Your task to perform on an android device: turn off smart reply in the gmail app Image 0: 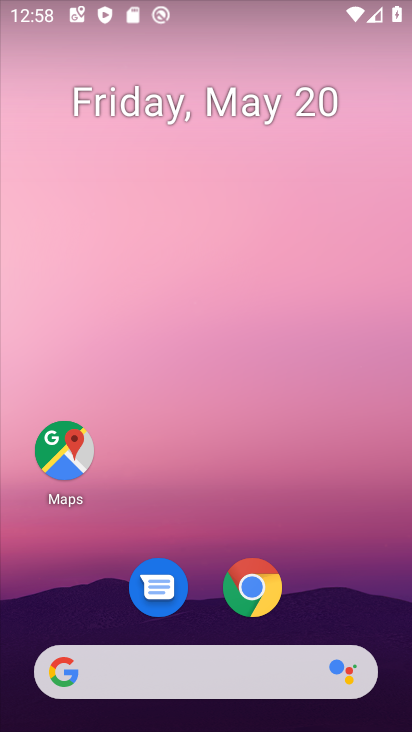
Step 0: drag from (340, 486) to (203, 20)
Your task to perform on an android device: turn off smart reply in the gmail app Image 1: 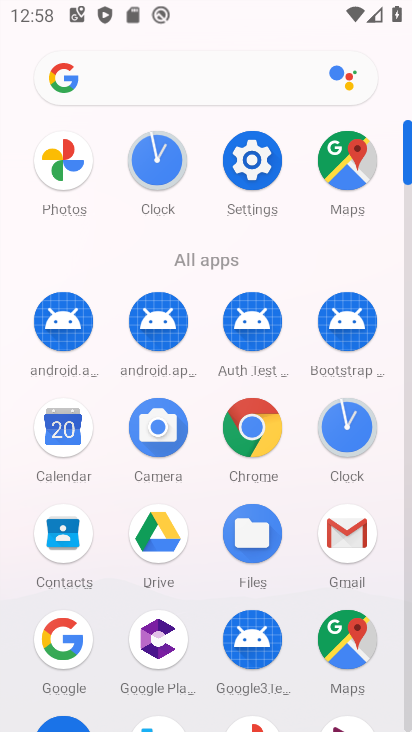
Step 1: click (337, 535)
Your task to perform on an android device: turn off smart reply in the gmail app Image 2: 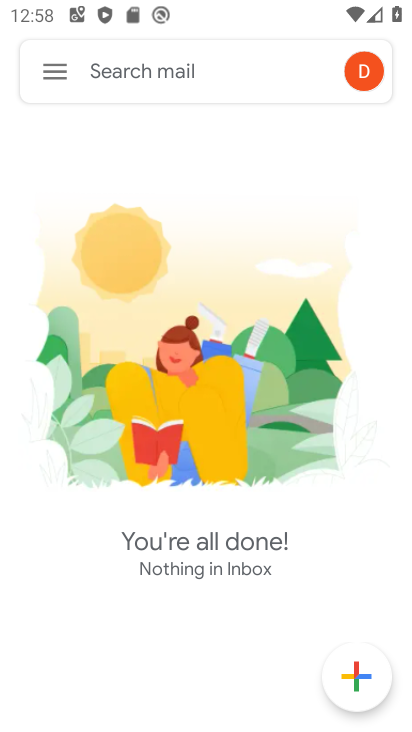
Step 2: click (59, 64)
Your task to perform on an android device: turn off smart reply in the gmail app Image 3: 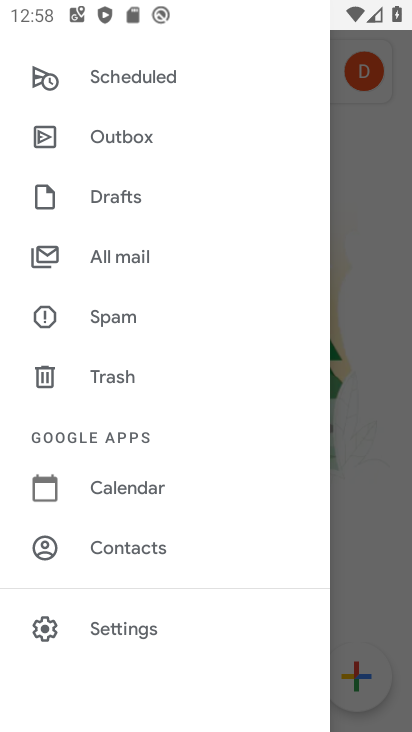
Step 3: click (130, 627)
Your task to perform on an android device: turn off smart reply in the gmail app Image 4: 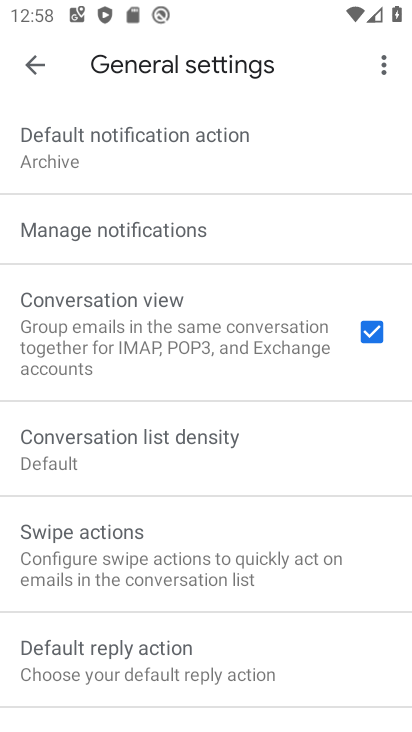
Step 4: drag from (191, 533) to (137, 242)
Your task to perform on an android device: turn off smart reply in the gmail app Image 5: 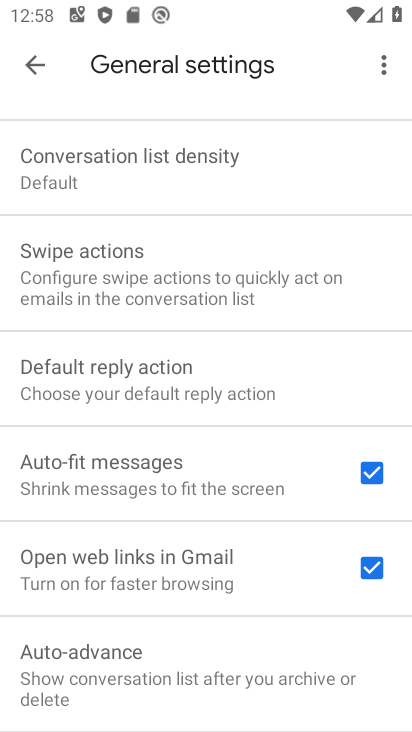
Step 5: click (36, 68)
Your task to perform on an android device: turn off smart reply in the gmail app Image 6: 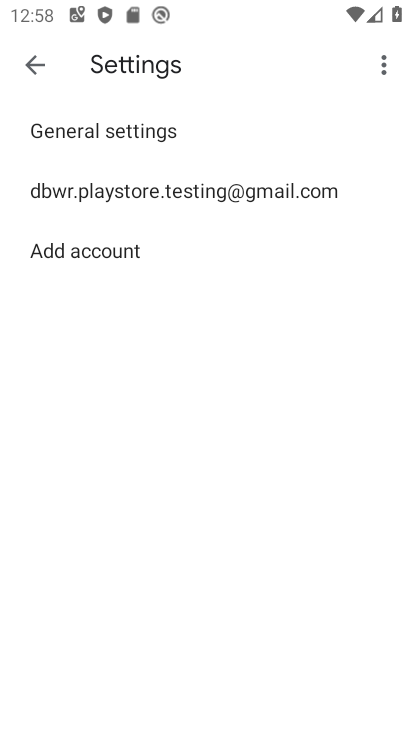
Step 6: click (99, 184)
Your task to perform on an android device: turn off smart reply in the gmail app Image 7: 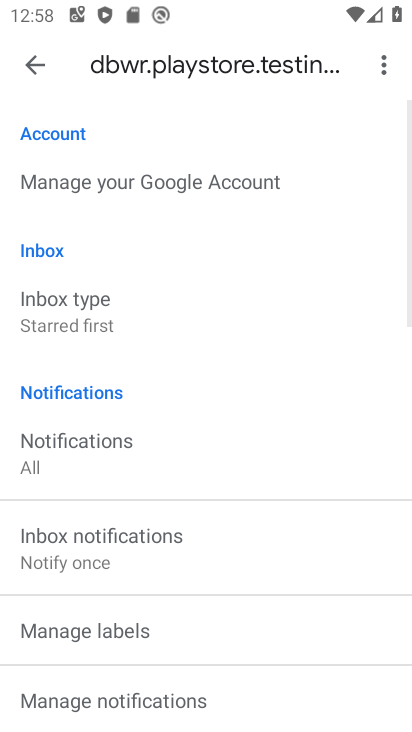
Step 7: drag from (202, 544) to (168, 77)
Your task to perform on an android device: turn off smart reply in the gmail app Image 8: 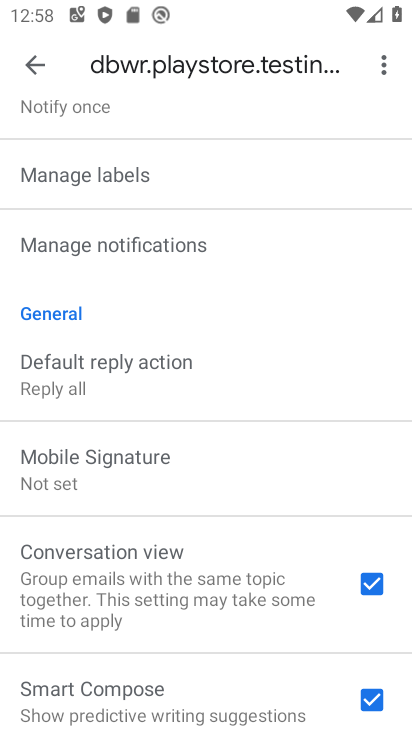
Step 8: drag from (220, 459) to (203, 241)
Your task to perform on an android device: turn off smart reply in the gmail app Image 9: 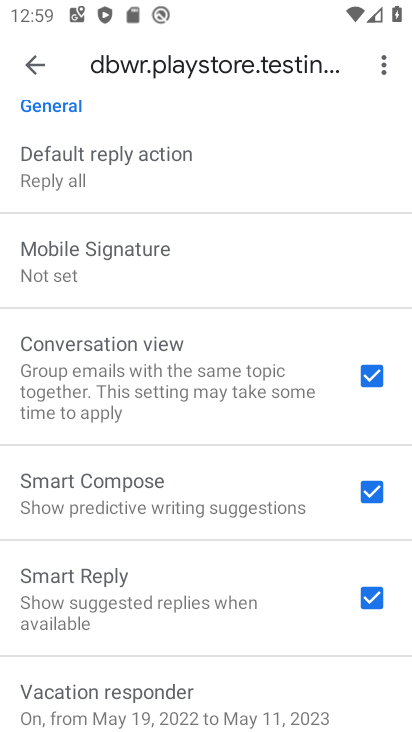
Step 9: click (364, 587)
Your task to perform on an android device: turn off smart reply in the gmail app Image 10: 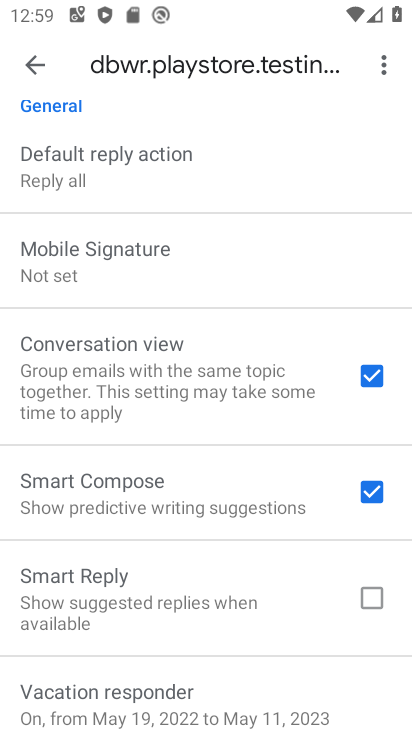
Step 10: task complete